Your task to perform on an android device: turn notification dots on Image 0: 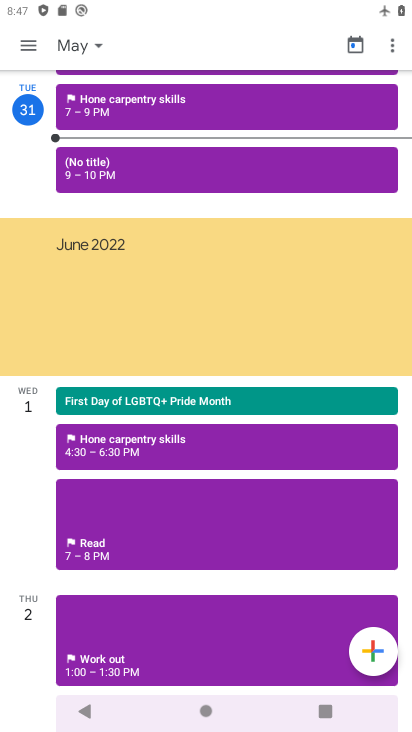
Step 0: press home button
Your task to perform on an android device: turn notification dots on Image 1: 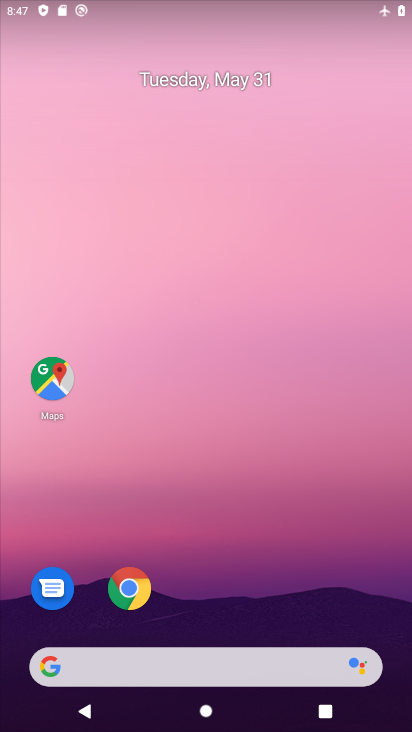
Step 1: drag from (163, 692) to (258, 22)
Your task to perform on an android device: turn notification dots on Image 2: 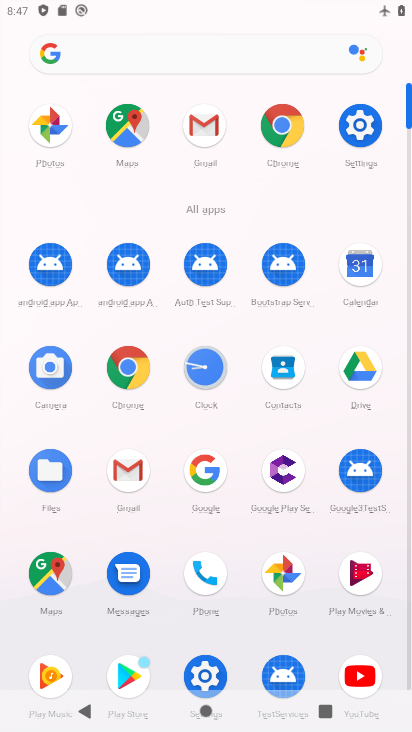
Step 2: click (368, 126)
Your task to perform on an android device: turn notification dots on Image 3: 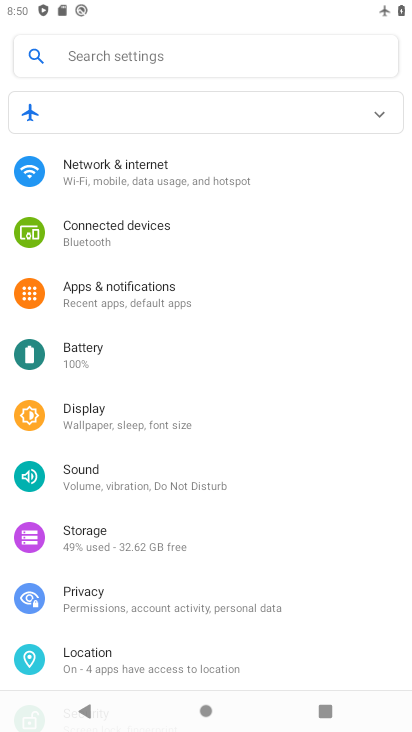
Step 3: click (152, 298)
Your task to perform on an android device: turn notification dots on Image 4: 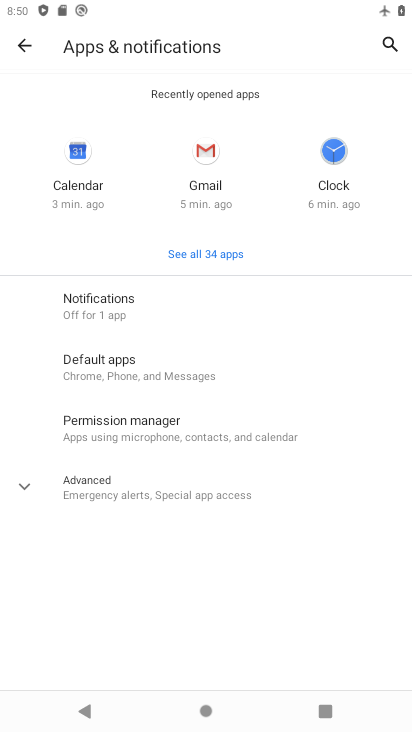
Step 4: click (211, 315)
Your task to perform on an android device: turn notification dots on Image 5: 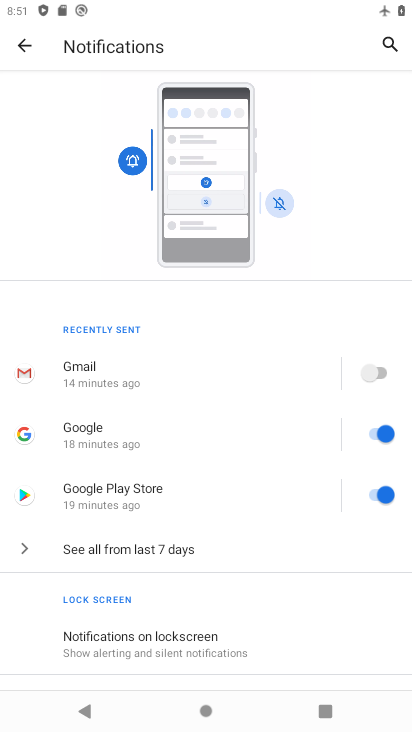
Step 5: drag from (276, 644) to (202, 118)
Your task to perform on an android device: turn notification dots on Image 6: 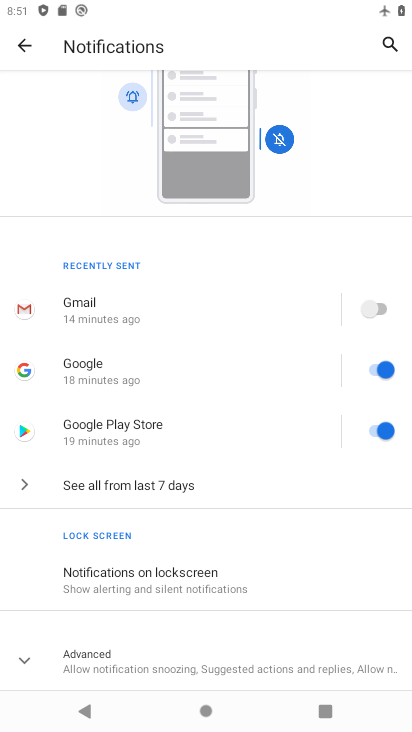
Step 6: click (288, 662)
Your task to perform on an android device: turn notification dots on Image 7: 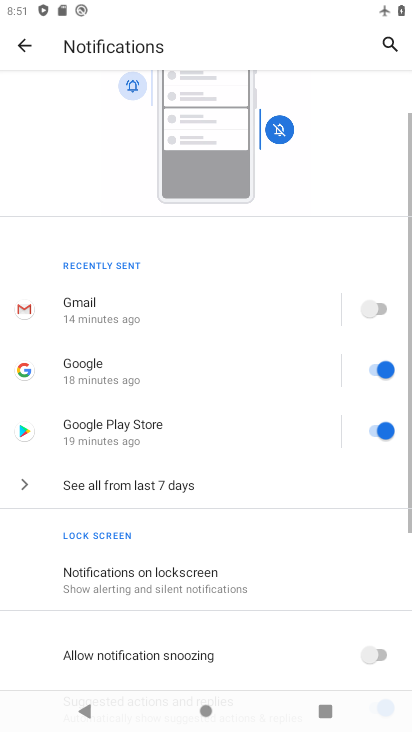
Step 7: task complete